Your task to perform on an android device: Play the last video I watched on Youtube Image 0: 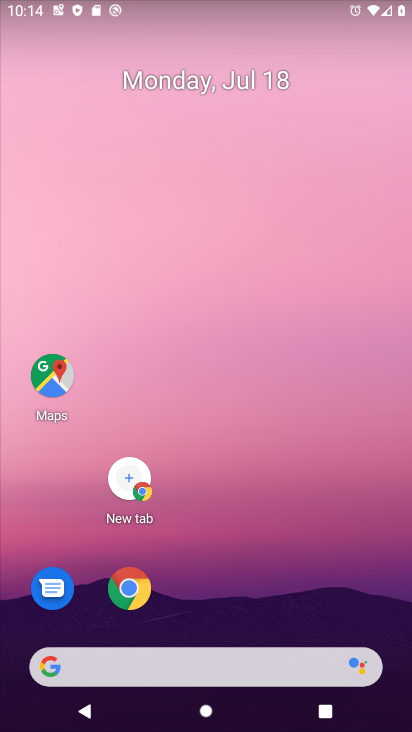
Step 0: drag from (179, 607) to (304, 46)
Your task to perform on an android device: Play the last video I watched on Youtube Image 1: 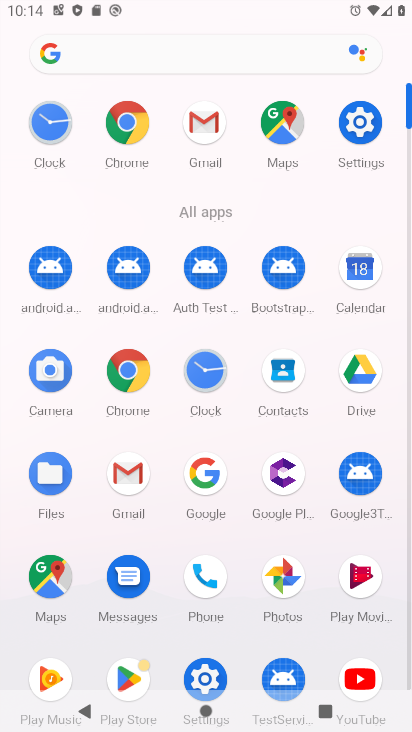
Step 1: click (359, 675)
Your task to perform on an android device: Play the last video I watched on Youtube Image 2: 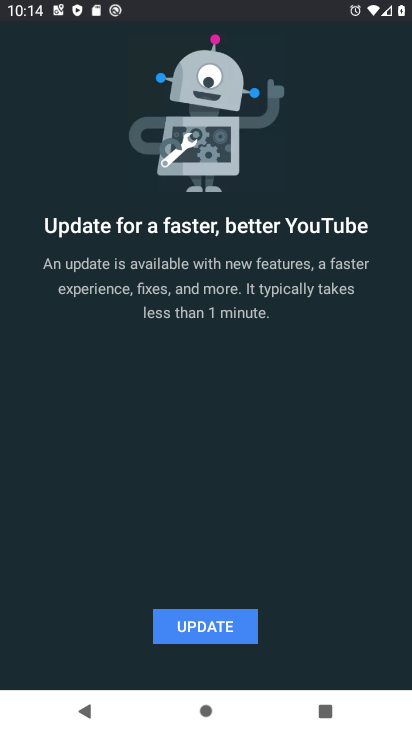
Step 2: click (216, 606)
Your task to perform on an android device: Play the last video I watched on Youtube Image 3: 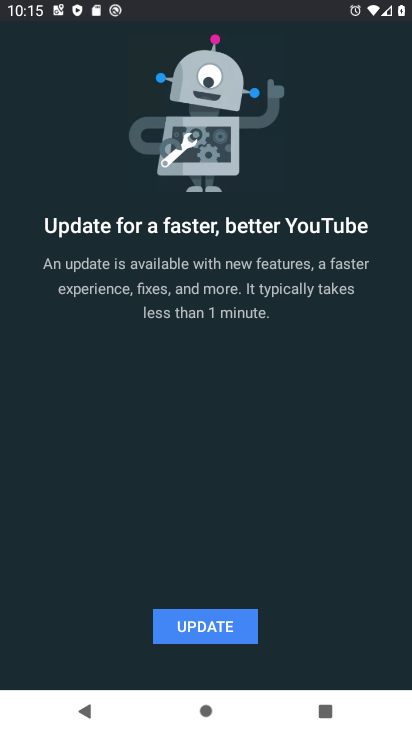
Step 3: click (216, 606)
Your task to perform on an android device: Play the last video I watched on Youtube Image 4: 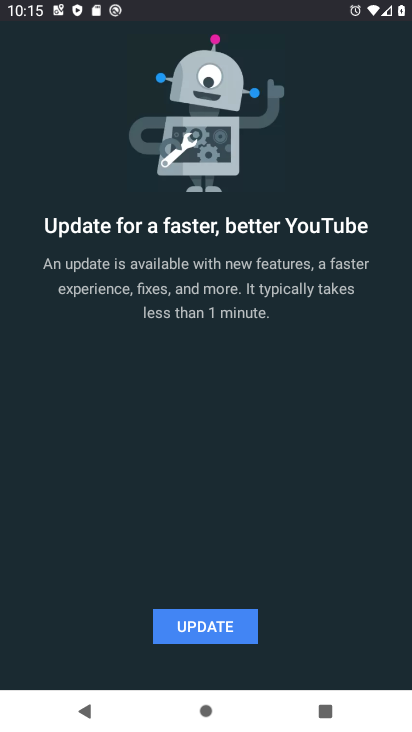
Step 4: click (204, 630)
Your task to perform on an android device: Play the last video I watched on Youtube Image 5: 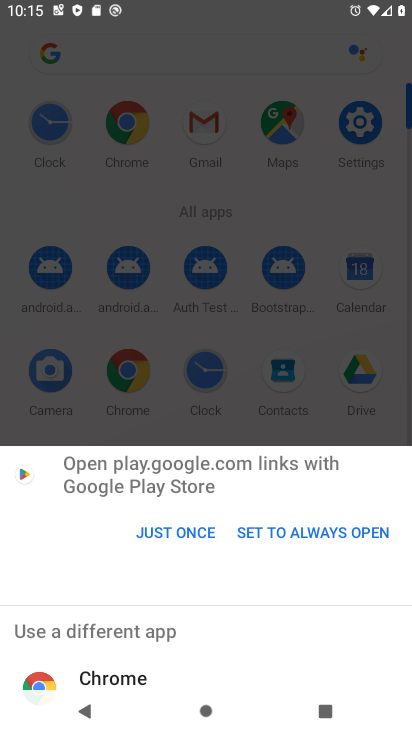
Step 5: click (174, 550)
Your task to perform on an android device: Play the last video I watched on Youtube Image 6: 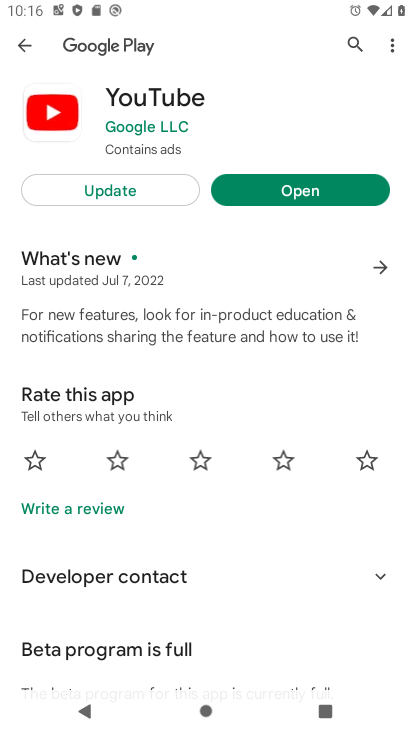
Step 6: click (176, 189)
Your task to perform on an android device: Play the last video I watched on Youtube Image 7: 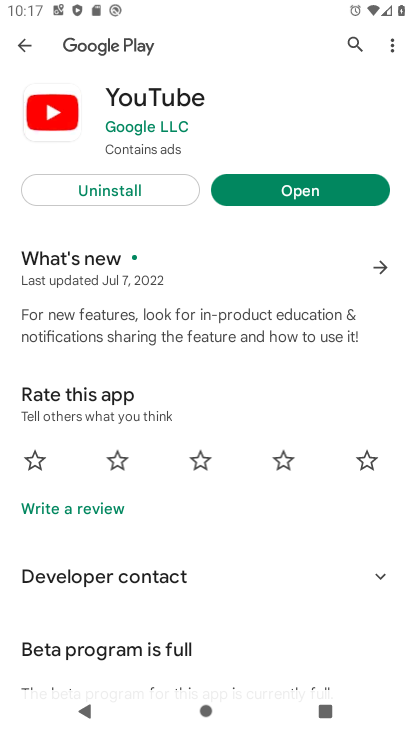
Step 7: click (290, 192)
Your task to perform on an android device: Play the last video I watched on Youtube Image 8: 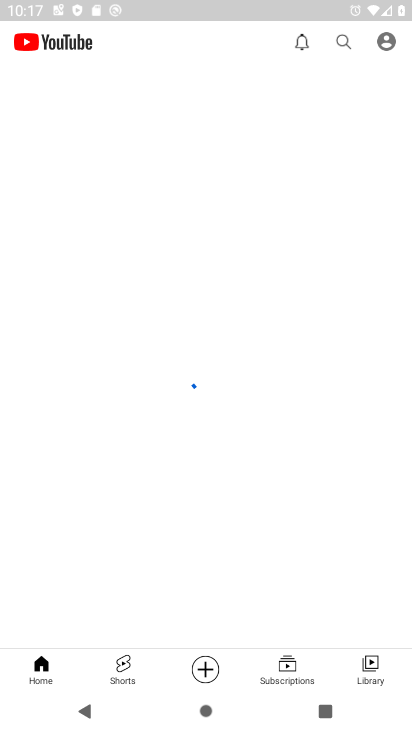
Step 8: click (353, 664)
Your task to perform on an android device: Play the last video I watched on Youtube Image 9: 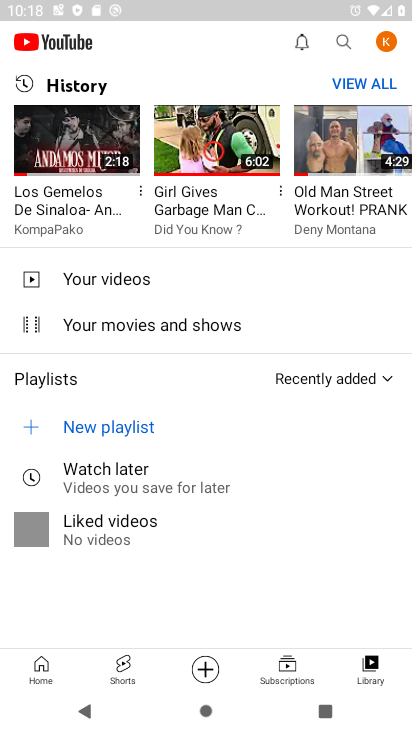
Step 9: click (24, 128)
Your task to perform on an android device: Play the last video I watched on Youtube Image 10: 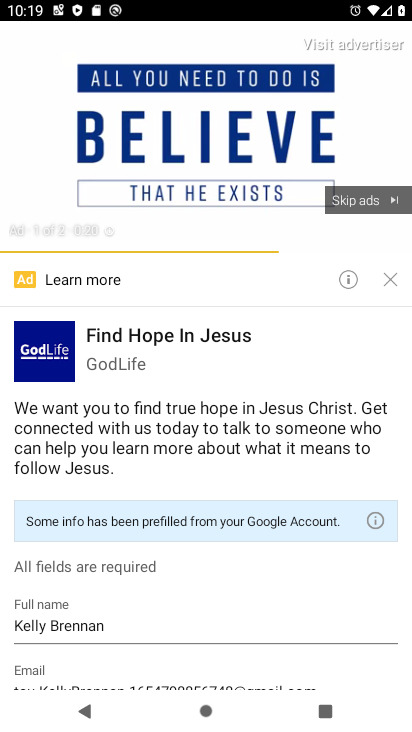
Step 10: click (383, 210)
Your task to perform on an android device: Play the last video I watched on Youtube Image 11: 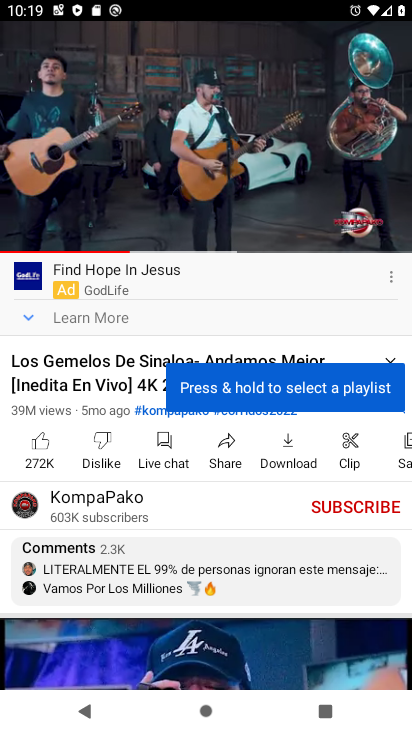
Step 11: task complete